Your task to perform on an android device: Set the phone to "Do not disturb". Image 0: 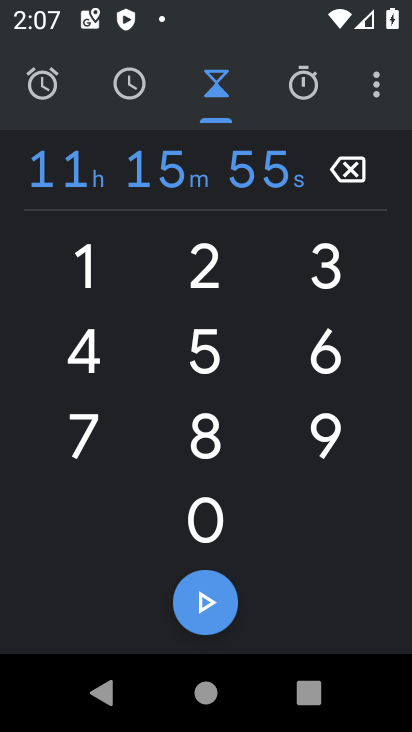
Step 0: drag from (257, 5) to (207, 728)
Your task to perform on an android device: Set the phone to "Do not disturb". Image 1: 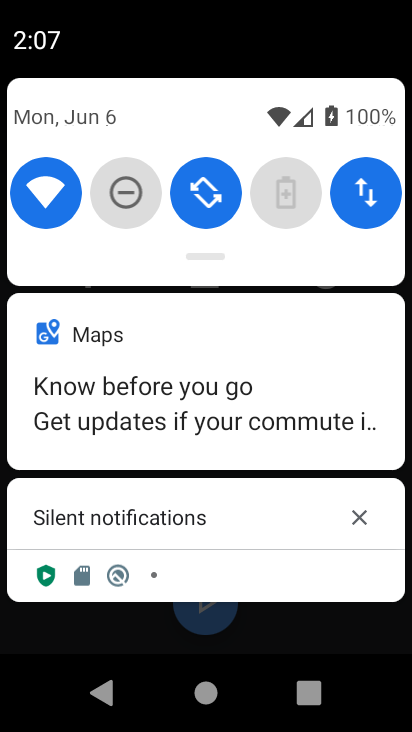
Step 1: click (133, 209)
Your task to perform on an android device: Set the phone to "Do not disturb". Image 2: 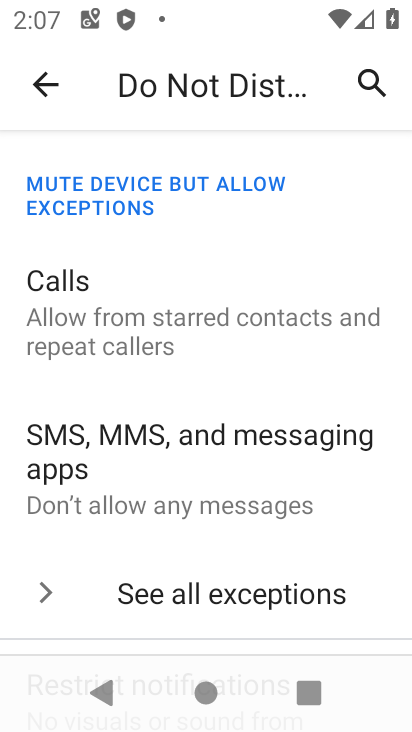
Step 2: drag from (220, 9) to (221, 228)
Your task to perform on an android device: Set the phone to "Do not disturb". Image 3: 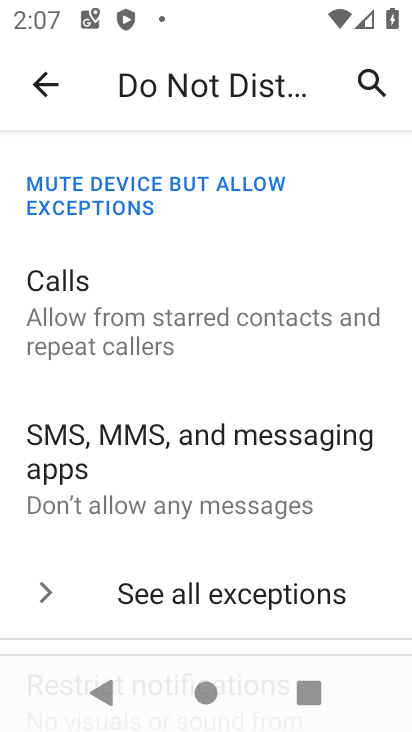
Step 3: drag from (195, 0) to (171, 689)
Your task to perform on an android device: Set the phone to "Do not disturb". Image 4: 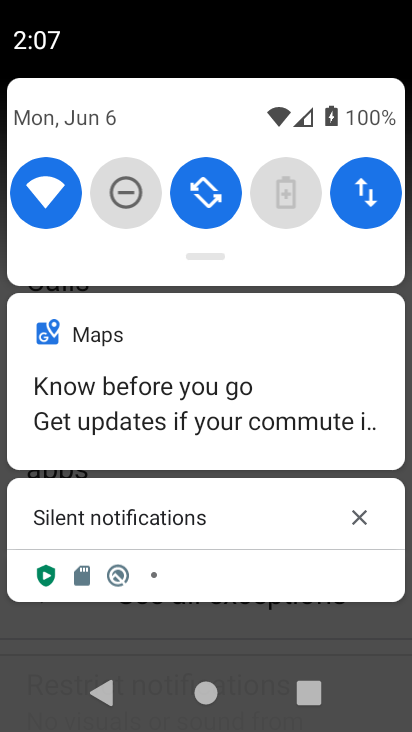
Step 4: click (132, 208)
Your task to perform on an android device: Set the phone to "Do not disturb". Image 5: 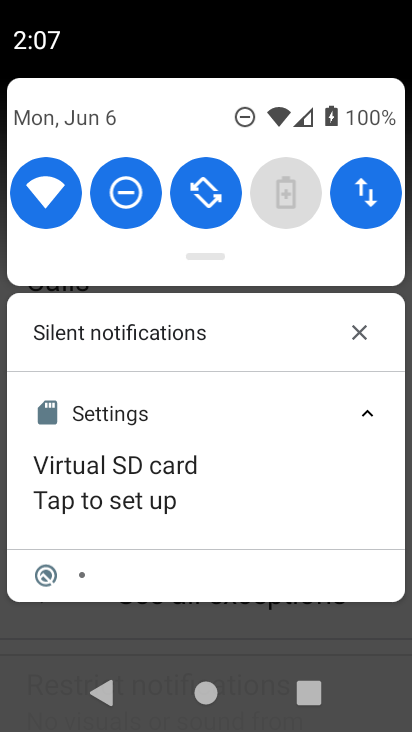
Step 5: task complete